Your task to perform on an android device: Go to sound settings Image 0: 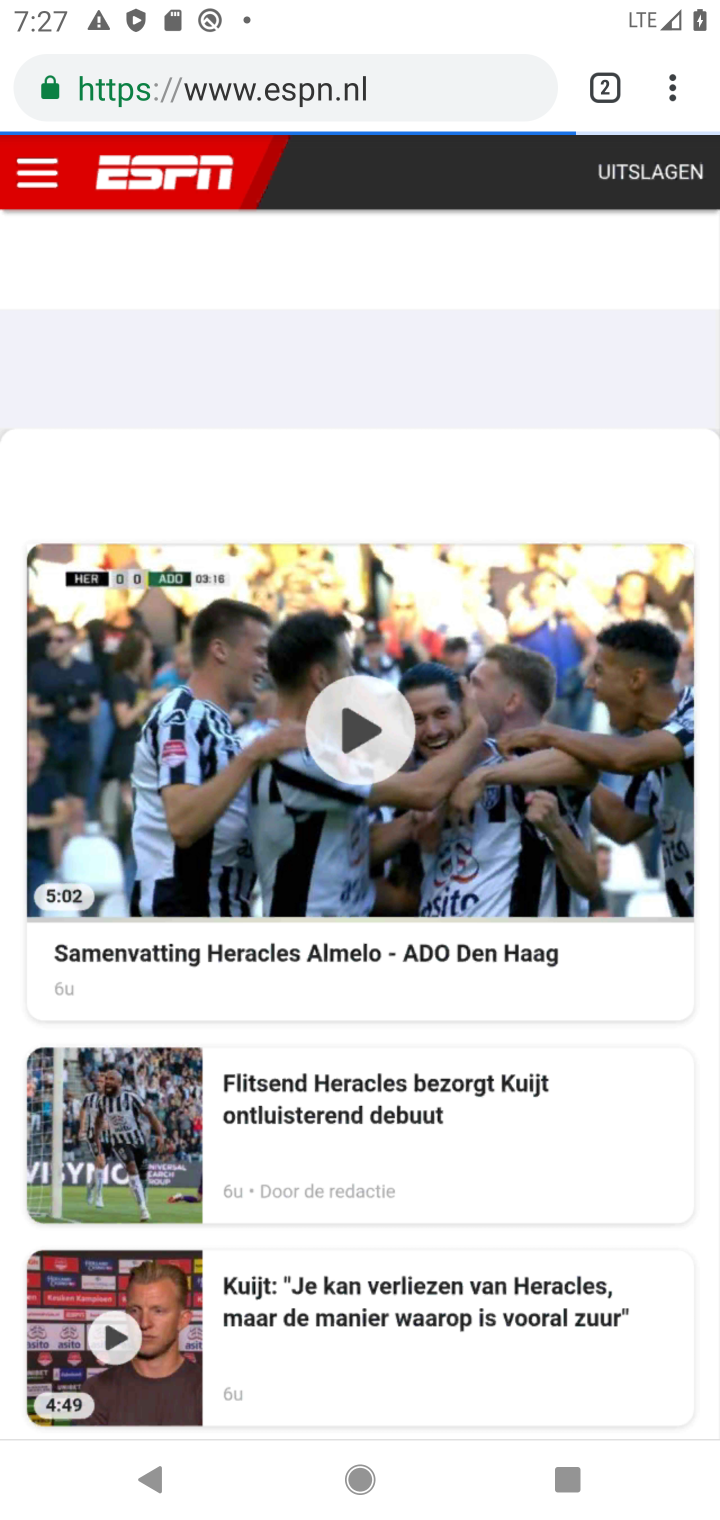
Step 0: press home button
Your task to perform on an android device: Go to sound settings Image 1: 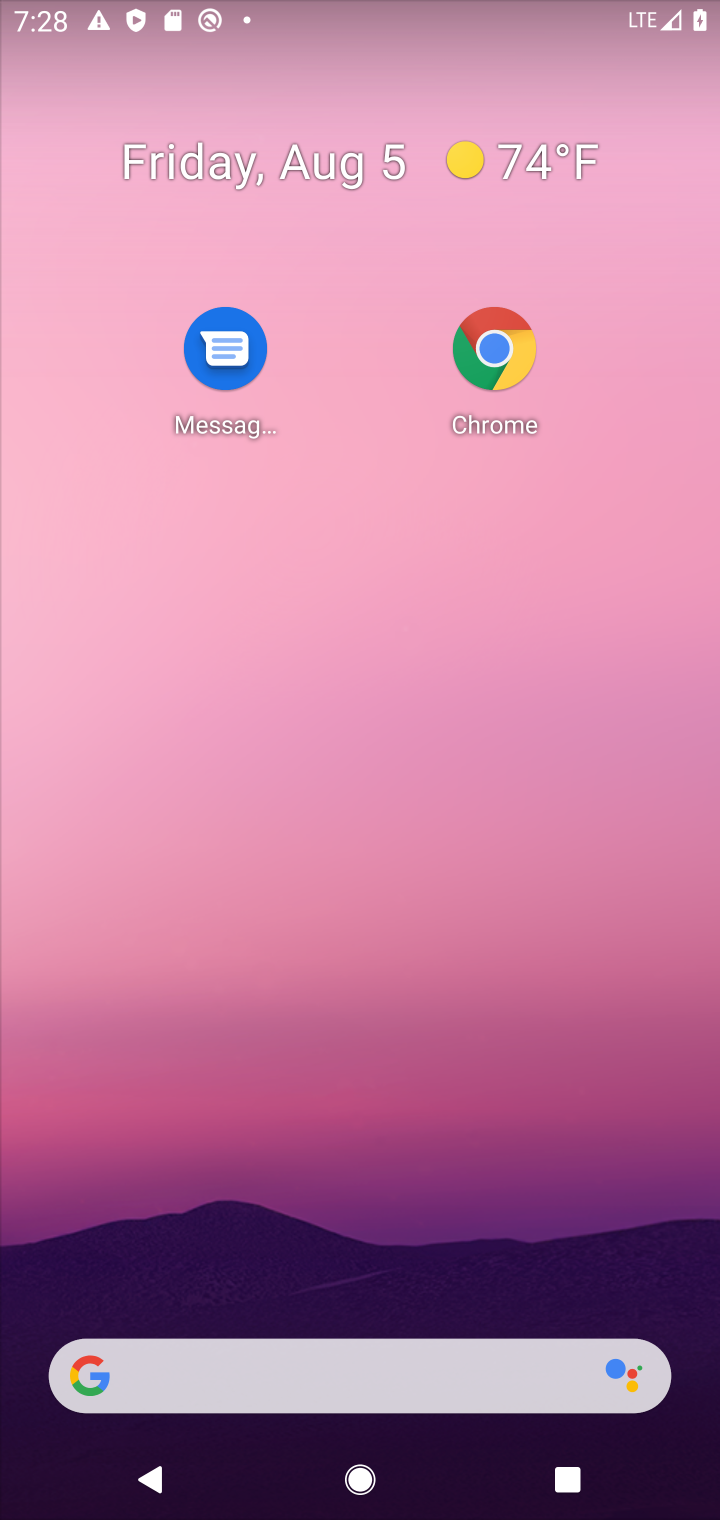
Step 1: click (480, 355)
Your task to perform on an android device: Go to sound settings Image 2: 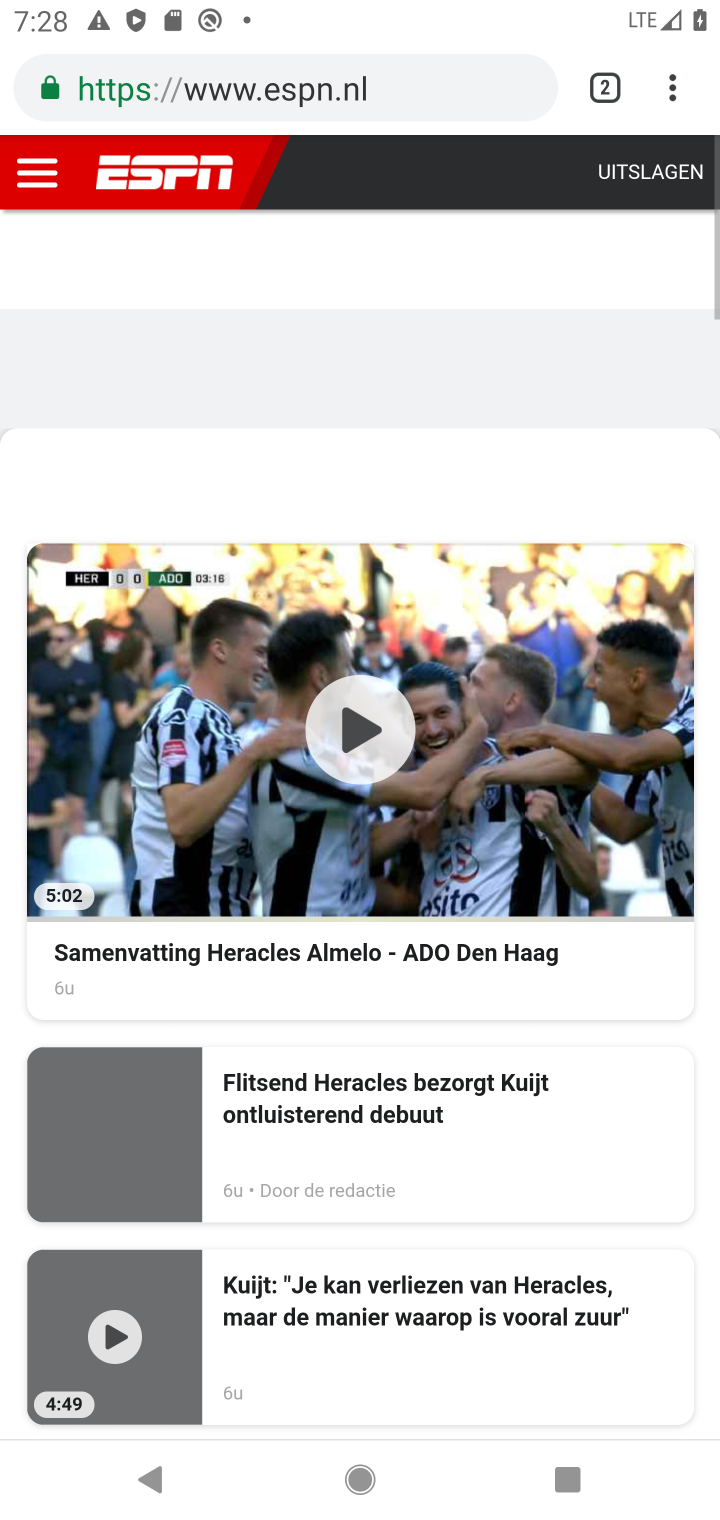
Step 2: press home button
Your task to perform on an android device: Go to sound settings Image 3: 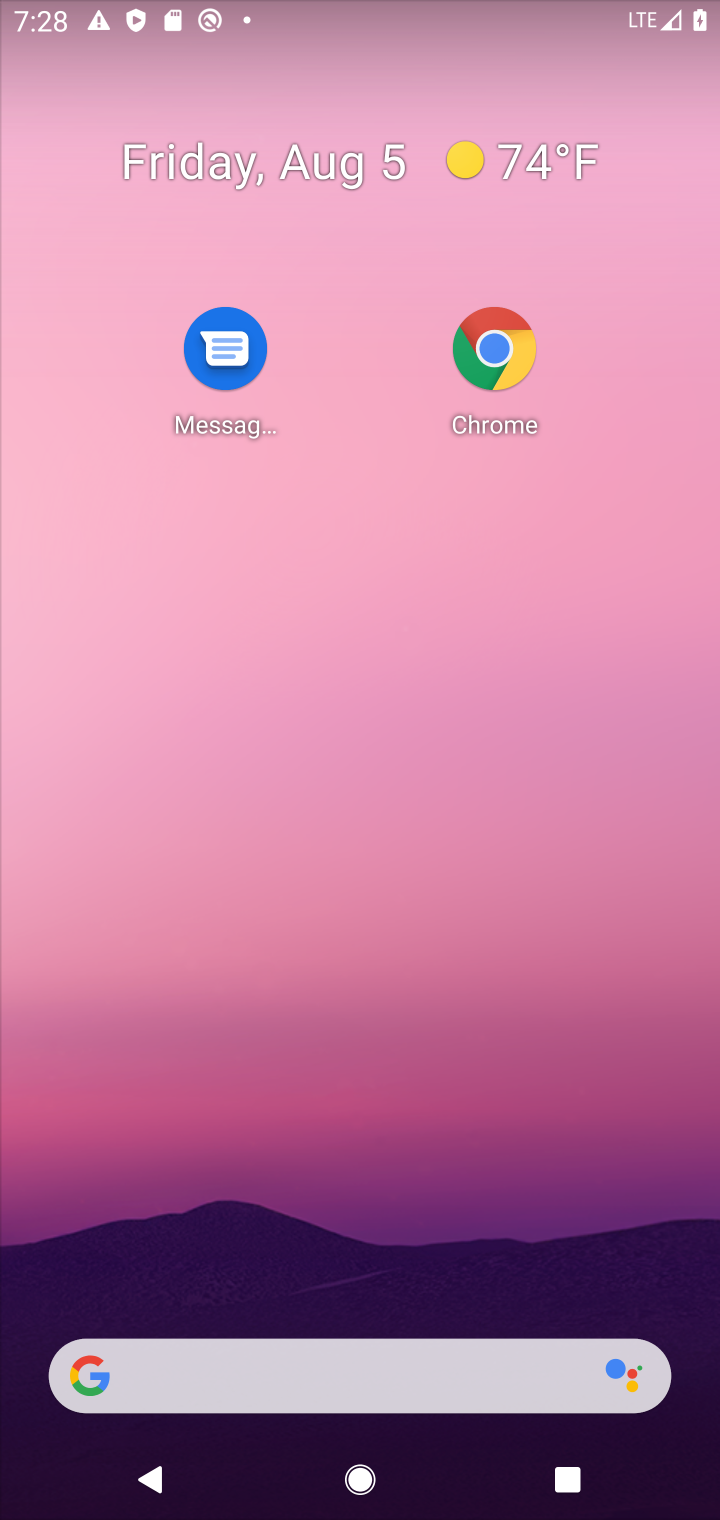
Step 3: drag from (435, 1415) to (290, 649)
Your task to perform on an android device: Go to sound settings Image 4: 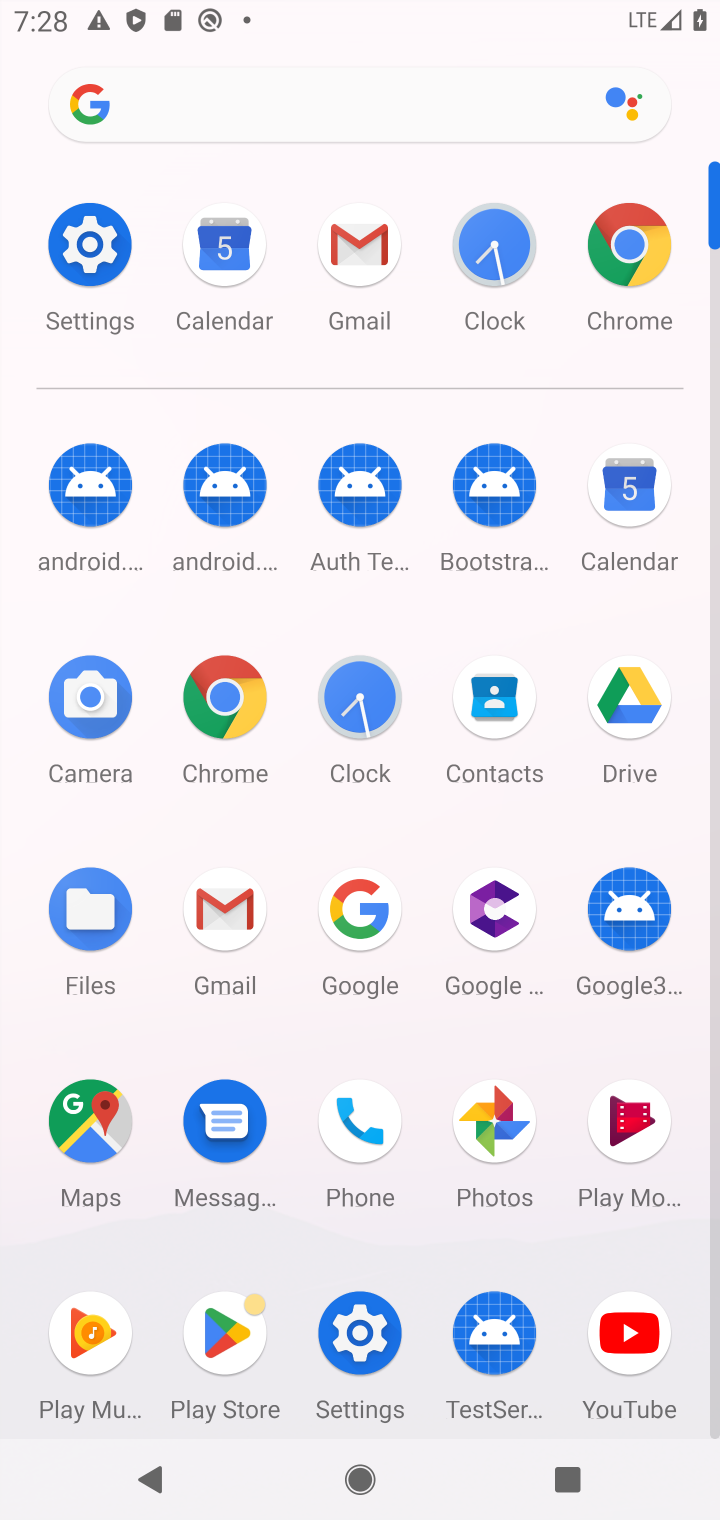
Step 4: click (99, 242)
Your task to perform on an android device: Go to sound settings Image 5: 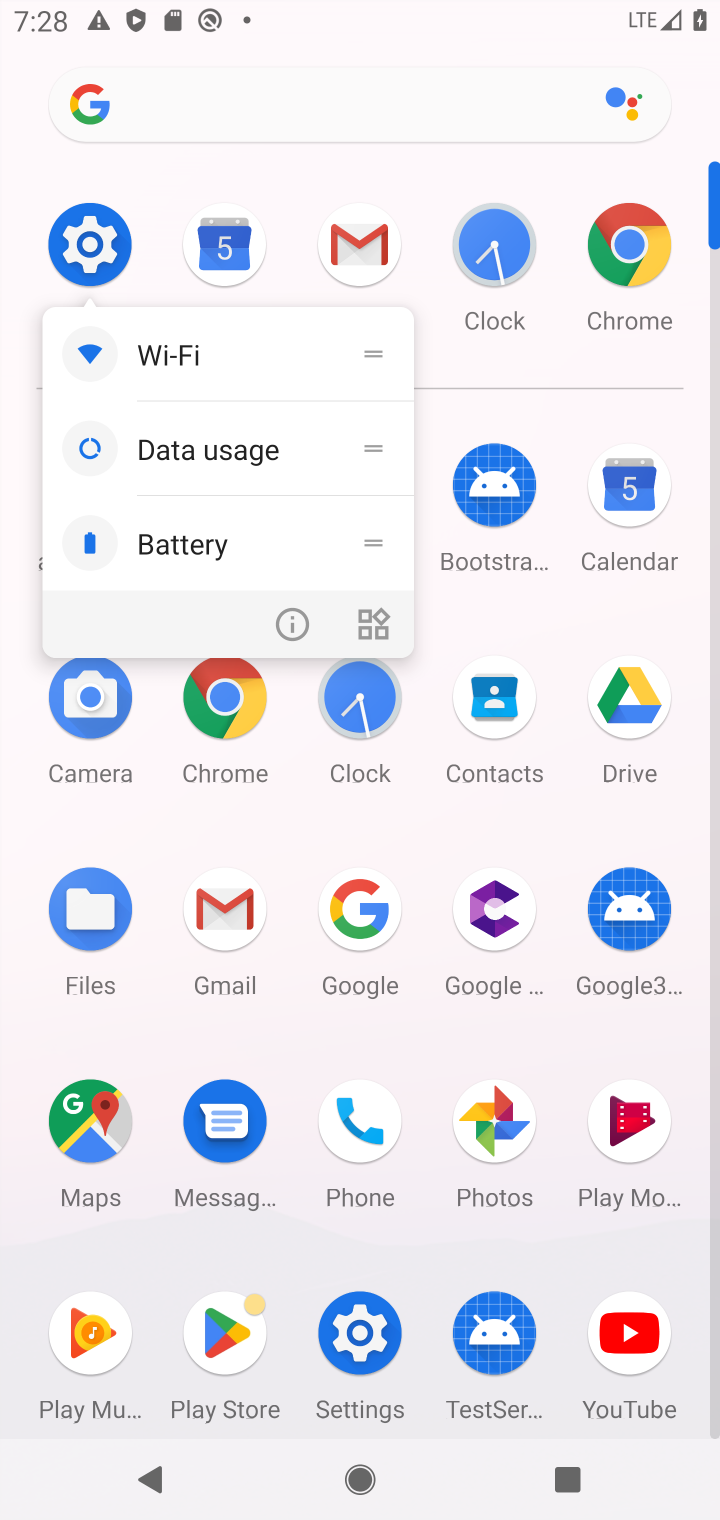
Step 5: click (83, 259)
Your task to perform on an android device: Go to sound settings Image 6: 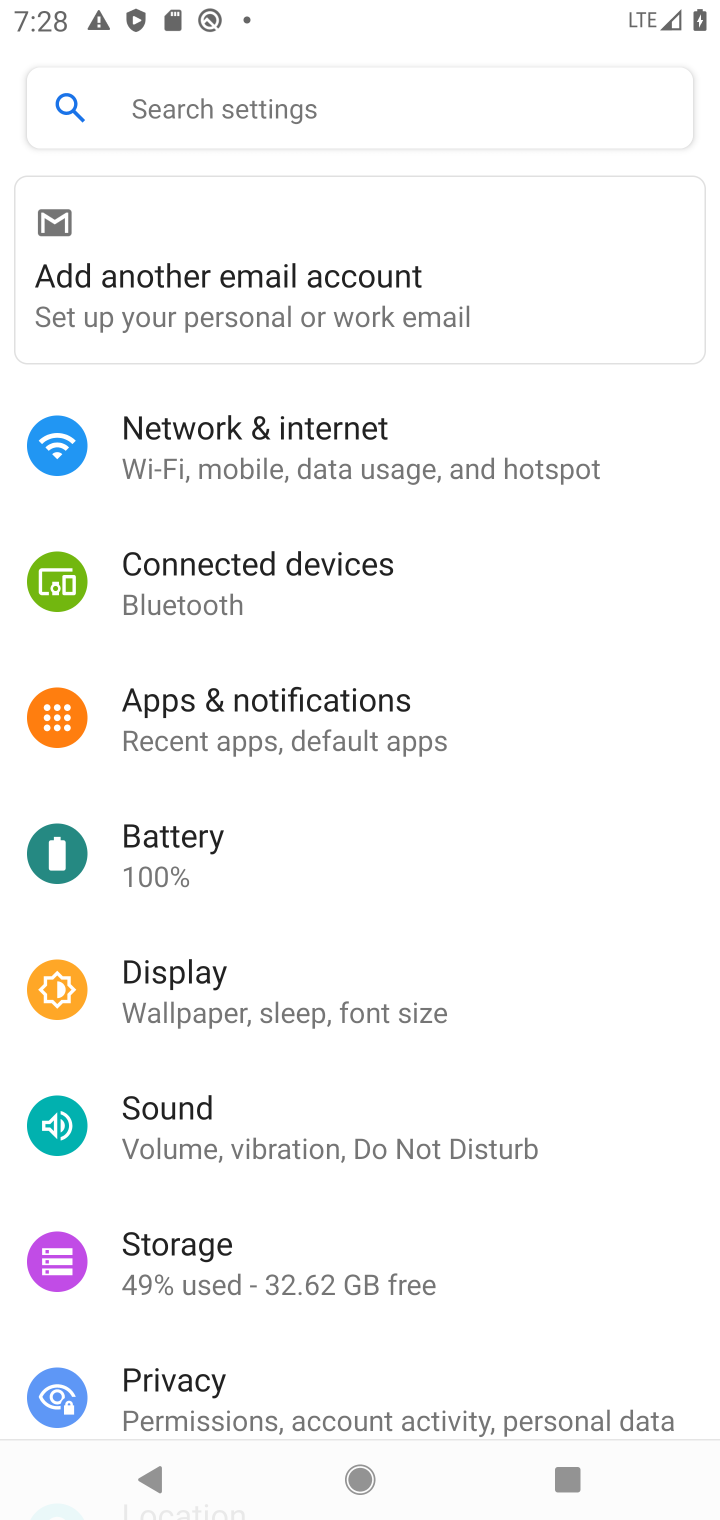
Step 6: click (156, 1129)
Your task to perform on an android device: Go to sound settings Image 7: 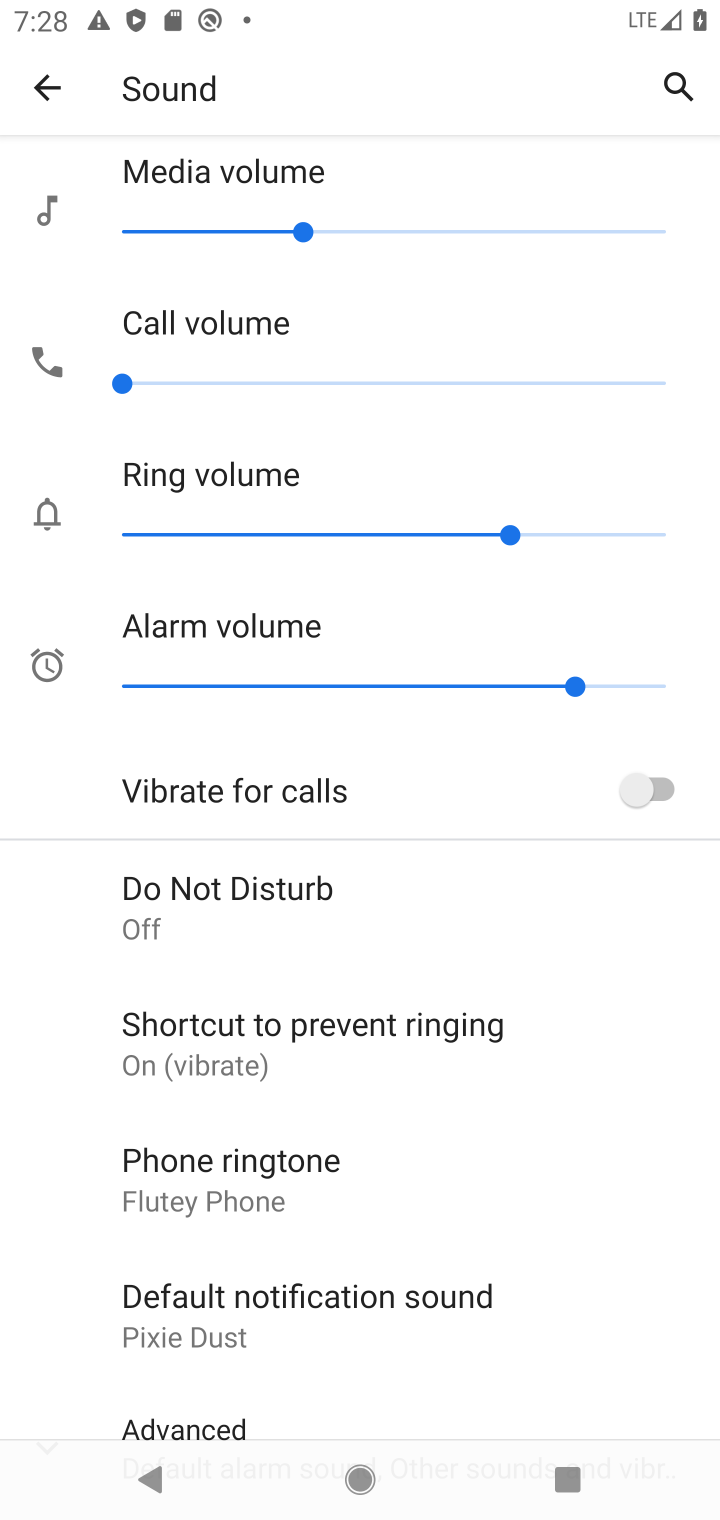
Step 7: task complete